Your task to perform on an android device: toggle notifications settings in the gmail app Image 0: 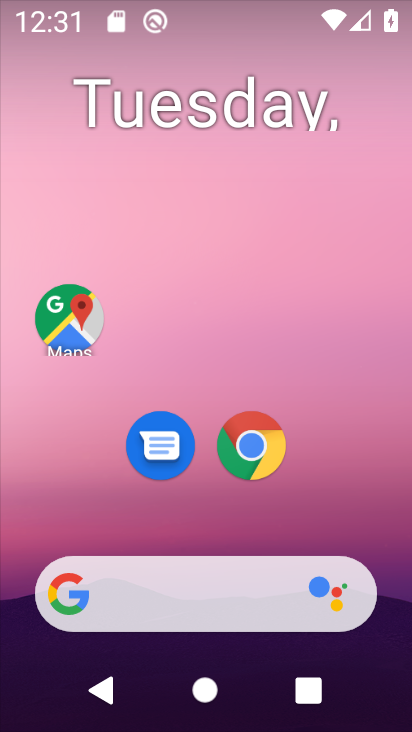
Step 0: drag from (81, 536) to (172, 95)
Your task to perform on an android device: toggle notifications settings in the gmail app Image 1: 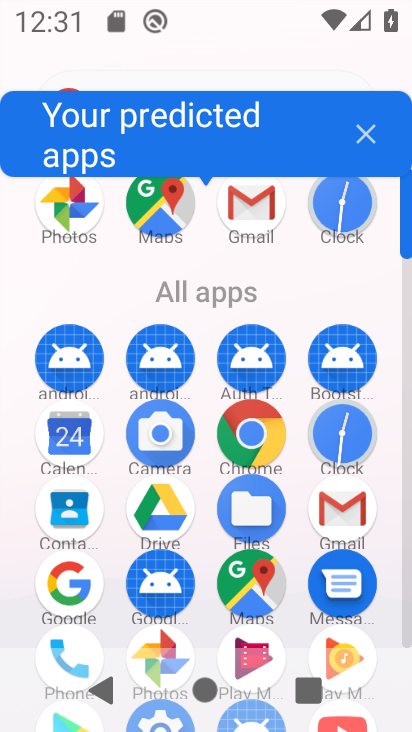
Step 1: drag from (208, 641) to (281, 355)
Your task to perform on an android device: toggle notifications settings in the gmail app Image 2: 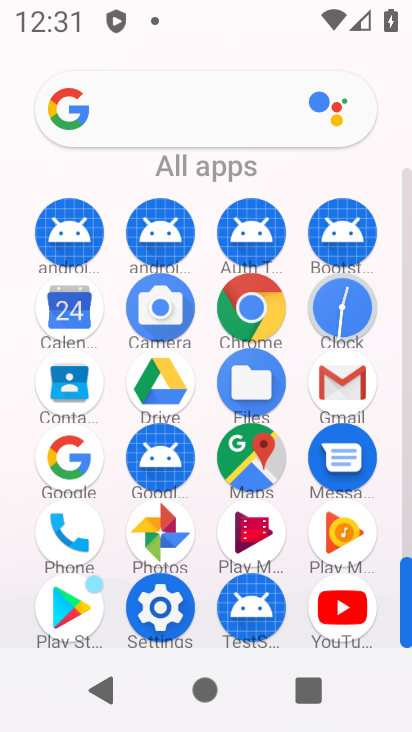
Step 2: click (340, 375)
Your task to perform on an android device: toggle notifications settings in the gmail app Image 3: 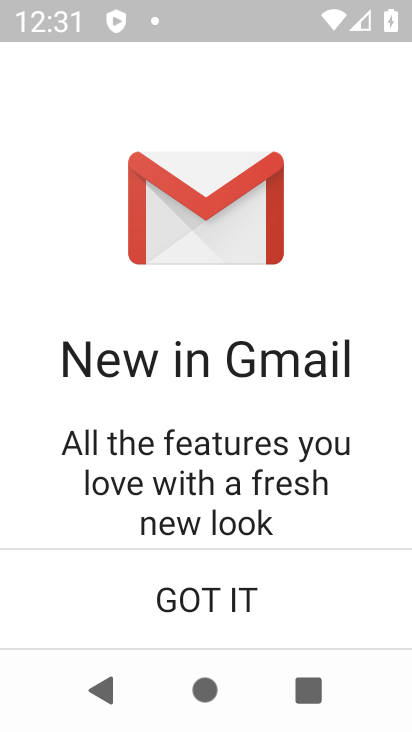
Step 3: click (220, 600)
Your task to perform on an android device: toggle notifications settings in the gmail app Image 4: 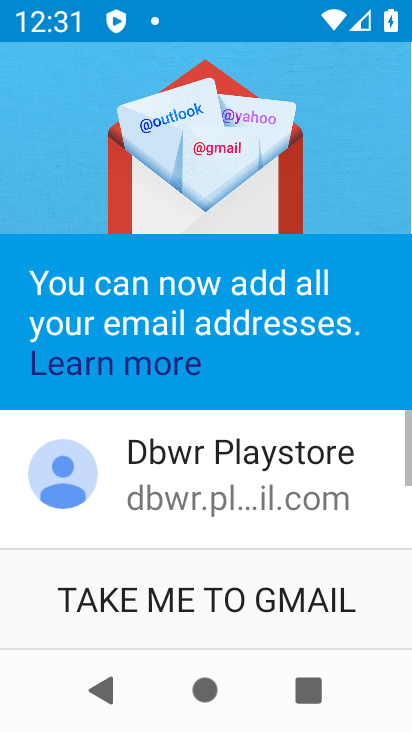
Step 4: click (220, 597)
Your task to perform on an android device: toggle notifications settings in the gmail app Image 5: 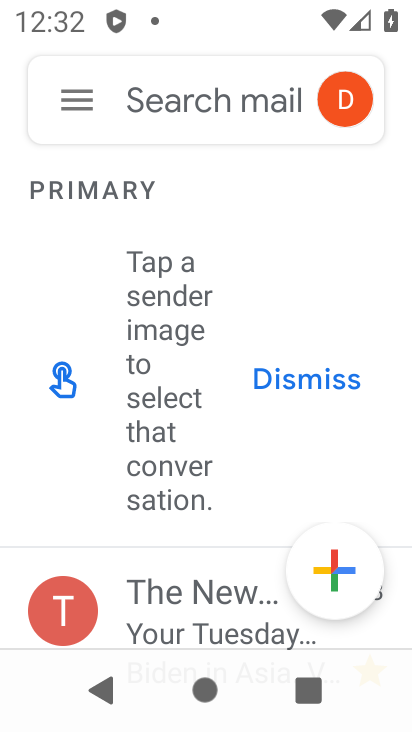
Step 5: click (85, 108)
Your task to perform on an android device: toggle notifications settings in the gmail app Image 6: 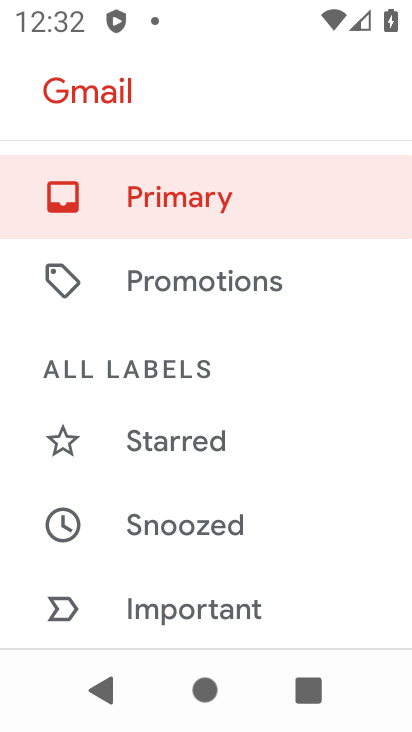
Step 6: drag from (117, 606) to (258, 144)
Your task to perform on an android device: toggle notifications settings in the gmail app Image 7: 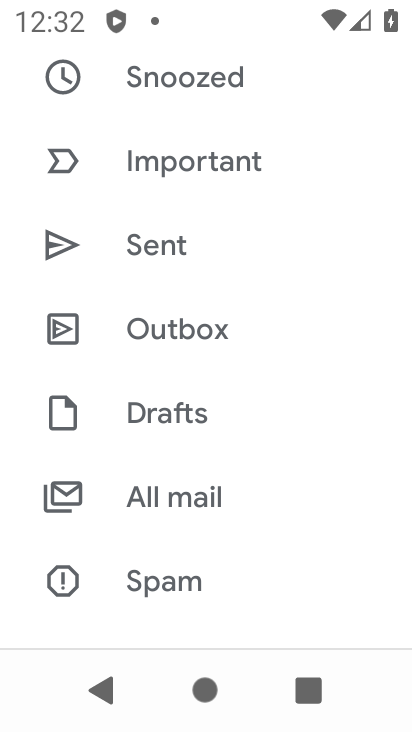
Step 7: drag from (156, 599) to (242, 225)
Your task to perform on an android device: toggle notifications settings in the gmail app Image 8: 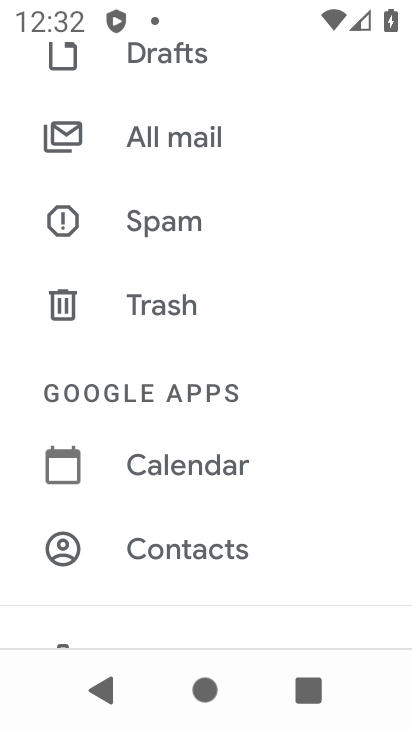
Step 8: drag from (160, 545) to (237, 191)
Your task to perform on an android device: toggle notifications settings in the gmail app Image 9: 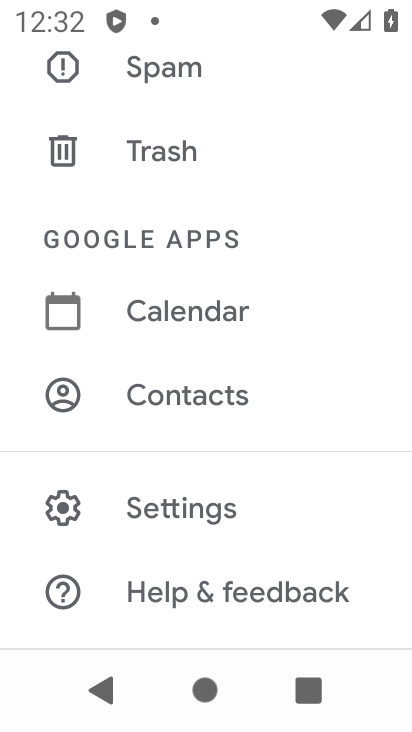
Step 9: click (200, 505)
Your task to perform on an android device: toggle notifications settings in the gmail app Image 10: 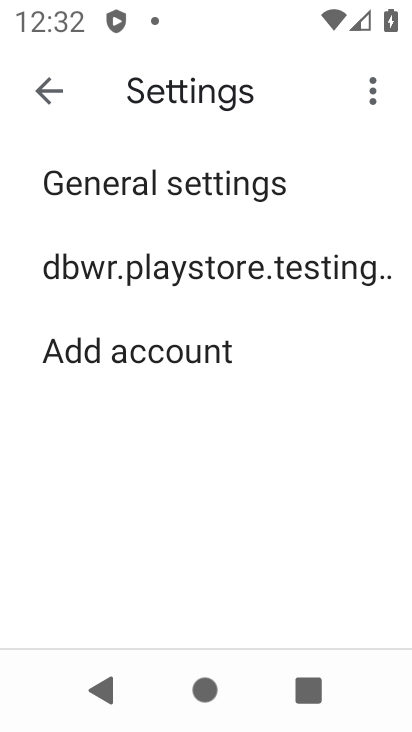
Step 10: click (219, 287)
Your task to perform on an android device: toggle notifications settings in the gmail app Image 11: 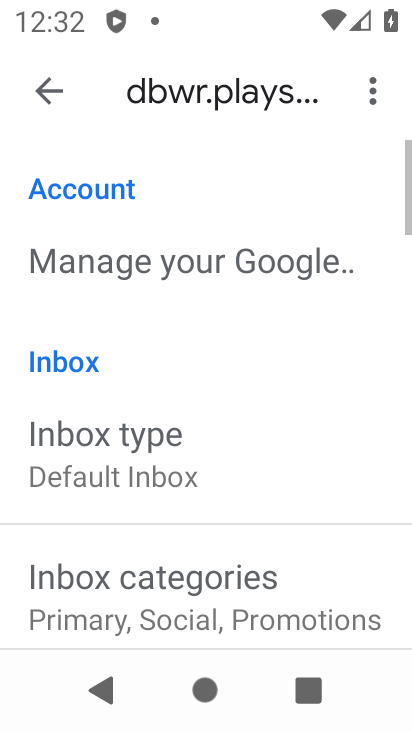
Step 11: drag from (161, 600) to (287, 162)
Your task to perform on an android device: toggle notifications settings in the gmail app Image 12: 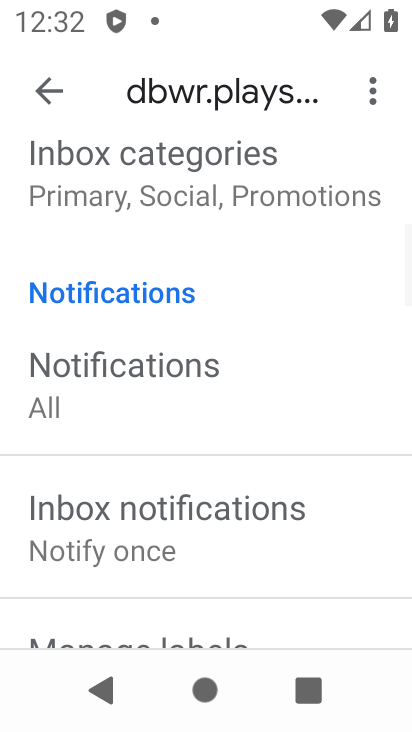
Step 12: drag from (82, 513) to (226, 294)
Your task to perform on an android device: toggle notifications settings in the gmail app Image 13: 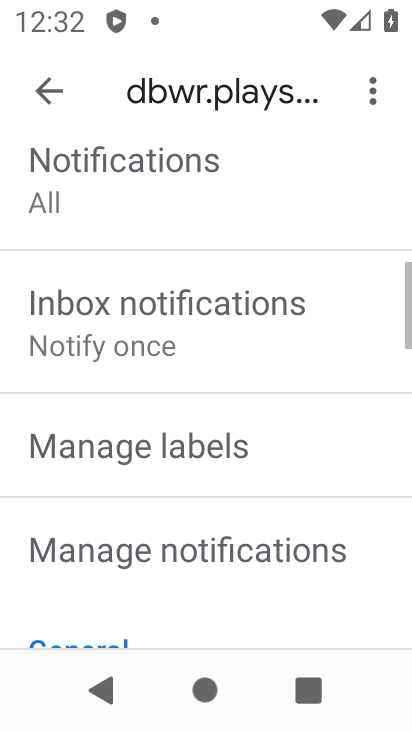
Step 13: click (255, 538)
Your task to perform on an android device: toggle notifications settings in the gmail app Image 14: 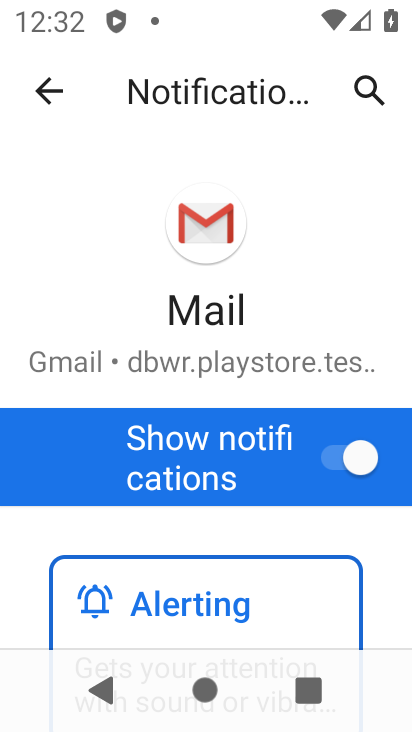
Step 14: click (323, 449)
Your task to perform on an android device: toggle notifications settings in the gmail app Image 15: 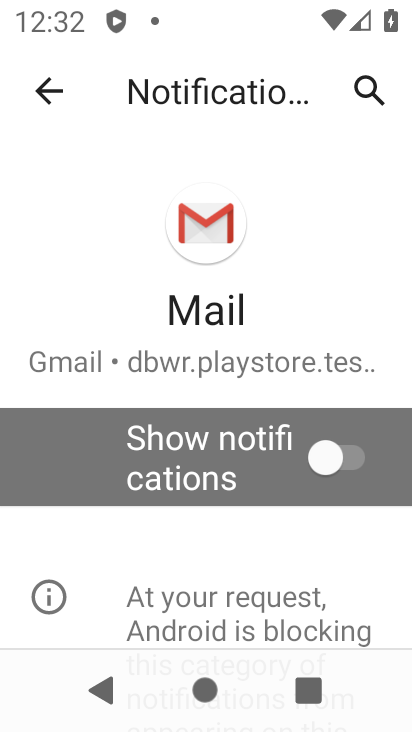
Step 15: task complete